Your task to perform on an android device: change your default location settings in chrome Image 0: 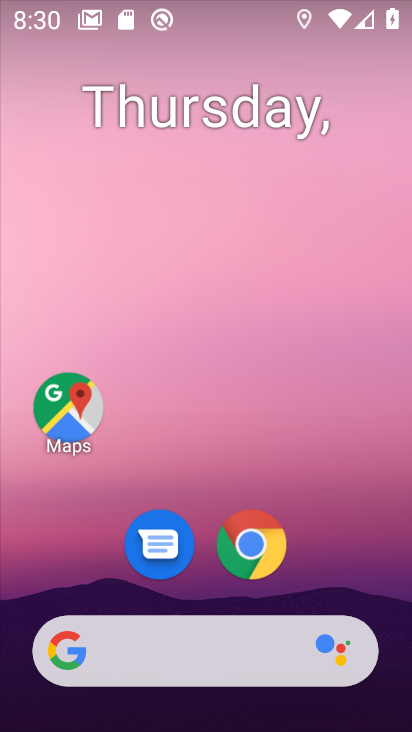
Step 0: drag from (337, 546) to (270, 24)
Your task to perform on an android device: change your default location settings in chrome Image 1: 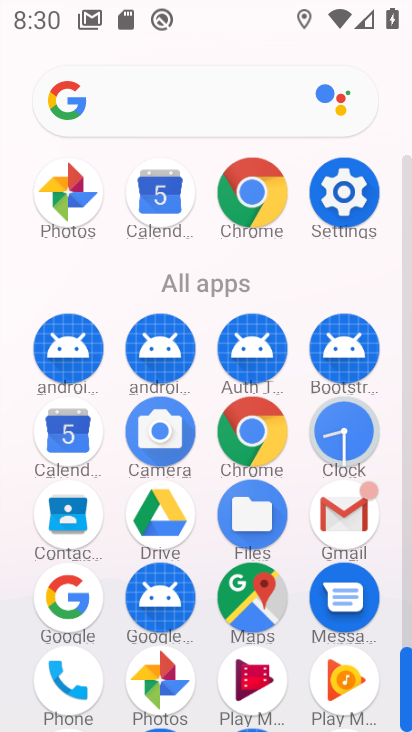
Step 1: click (250, 429)
Your task to perform on an android device: change your default location settings in chrome Image 2: 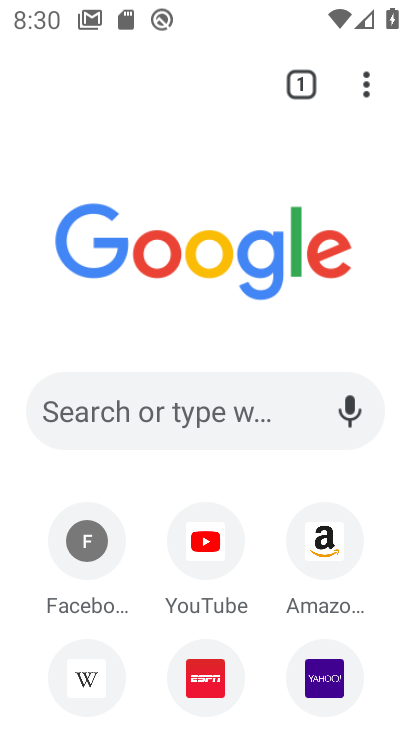
Step 2: drag from (367, 78) to (112, 592)
Your task to perform on an android device: change your default location settings in chrome Image 3: 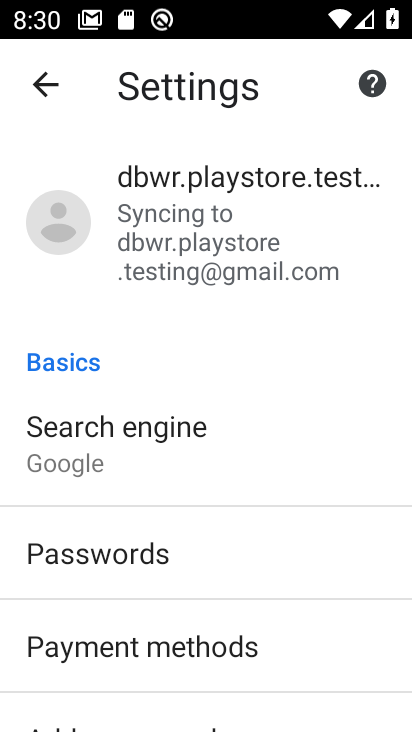
Step 3: drag from (275, 532) to (281, 234)
Your task to perform on an android device: change your default location settings in chrome Image 4: 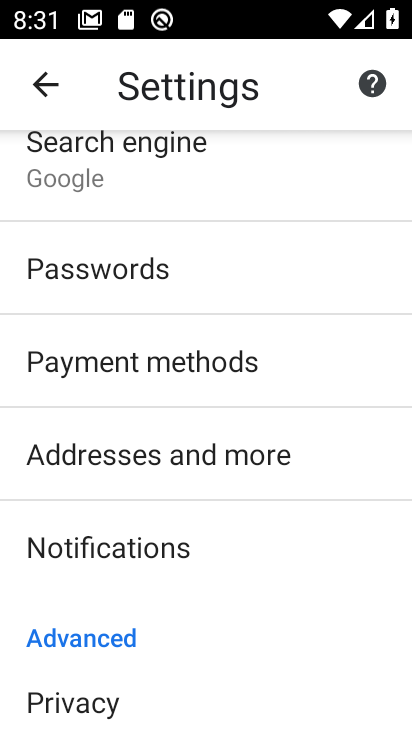
Step 4: drag from (265, 606) to (296, 229)
Your task to perform on an android device: change your default location settings in chrome Image 5: 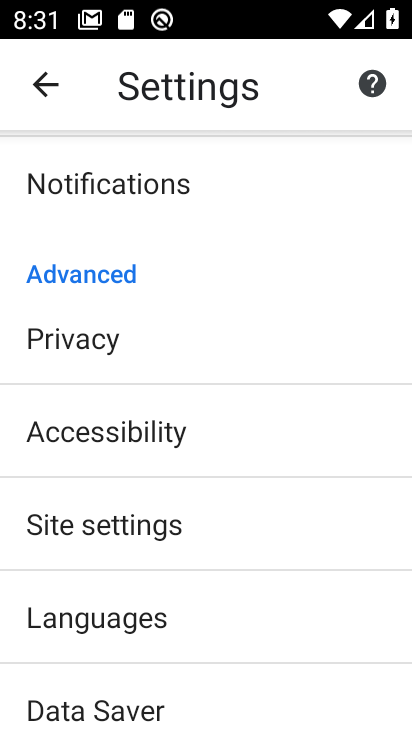
Step 5: drag from (236, 593) to (254, 383)
Your task to perform on an android device: change your default location settings in chrome Image 6: 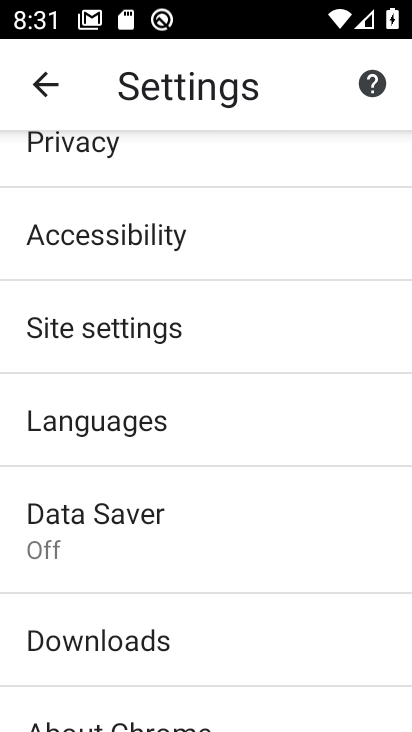
Step 6: click (159, 309)
Your task to perform on an android device: change your default location settings in chrome Image 7: 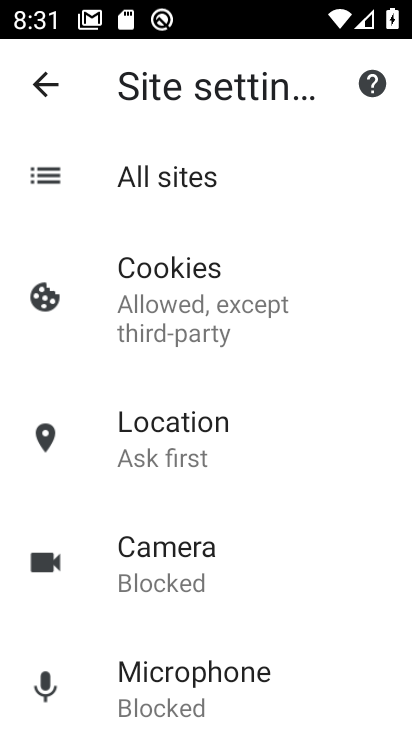
Step 7: click (247, 419)
Your task to perform on an android device: change your default location settings in chrome Image 8: 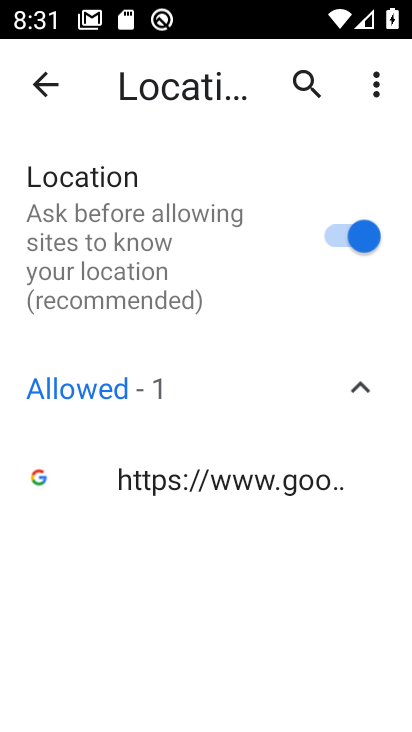
Step 8: click (338, 237)
Your task to perform on an android device: change your default location settings in chrome Image 9: 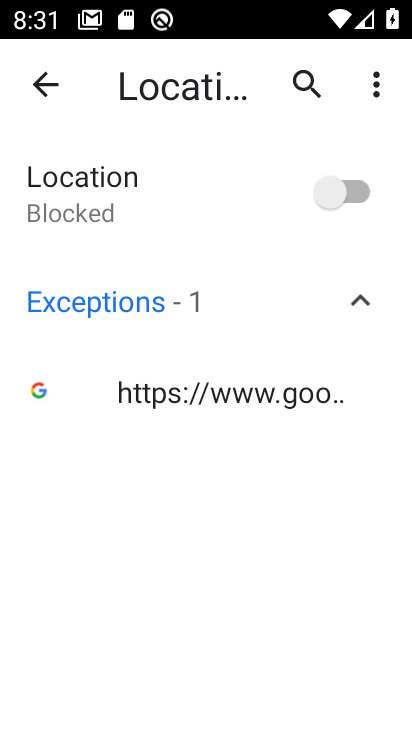
Step 9: task complete